Your task to perform on an android device: Open Wikipedia Image 0: 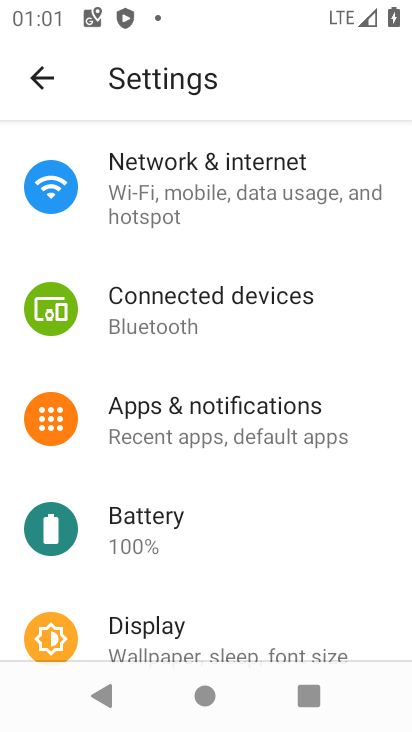
Step 0: press home button
Your task to perform on an android device: Open Wikipedia Image 1: 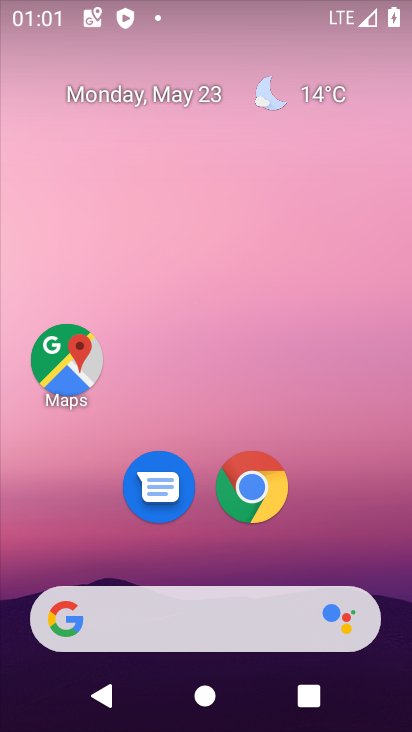
Step 1: click (253, 487)
Your task to perform on an android device: Open Wikipedia Image 2: 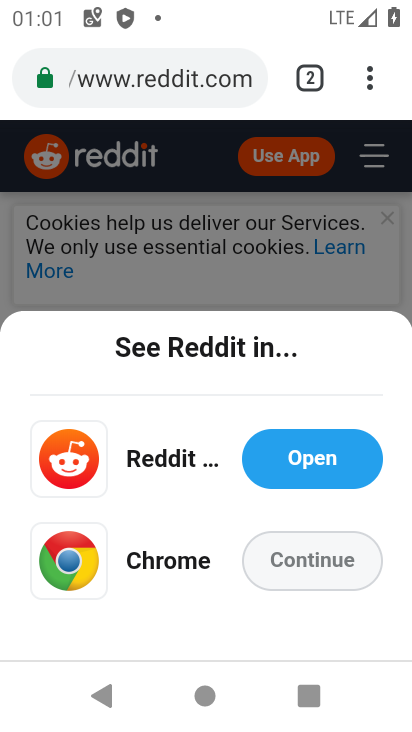
Step 2: click (137, 65)
Your task to perform on an android device: Open Wikipedia Image 3: 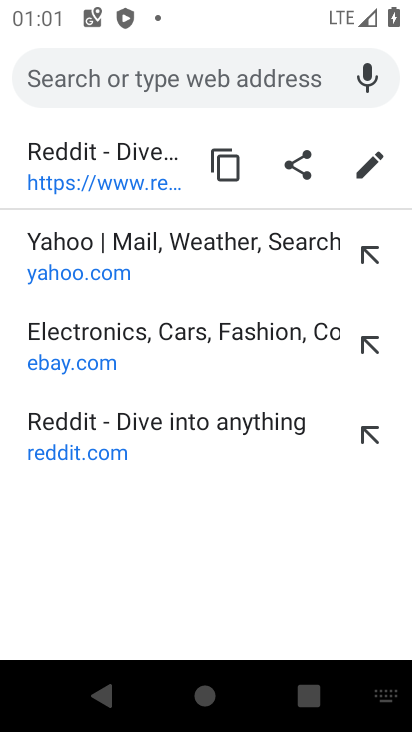
Step 3: type "wikipdeia"
Your task to perform on an android device: Open Wikipedia Image 4: 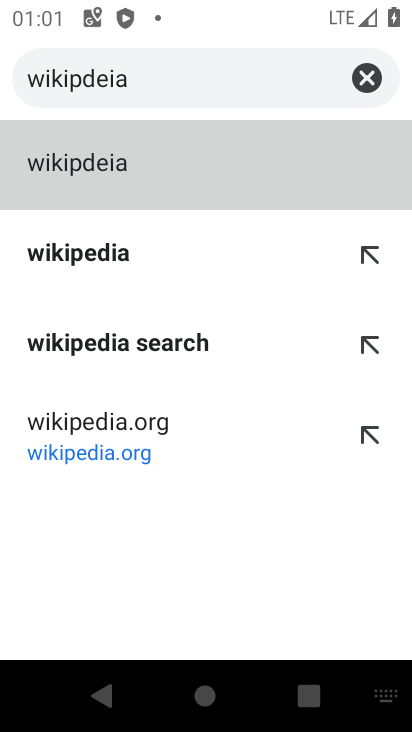
Step 4: click (111, 186)
Your task to perform on an android device: Open Wikipedia Image 5: 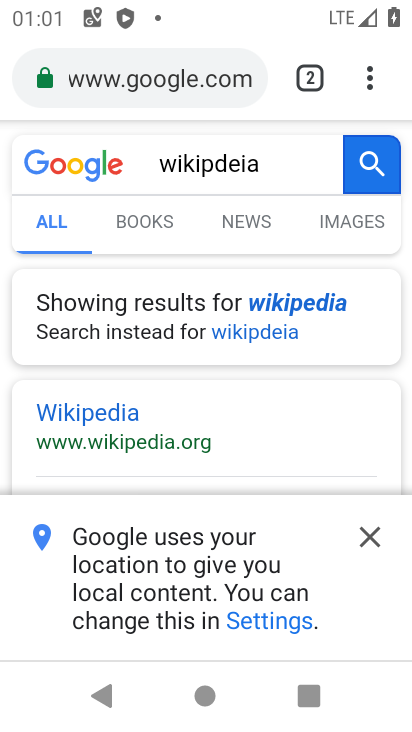
Step 5: click (370, 533)
Your task to perform on an android device: Open Wikipedia Image 6: 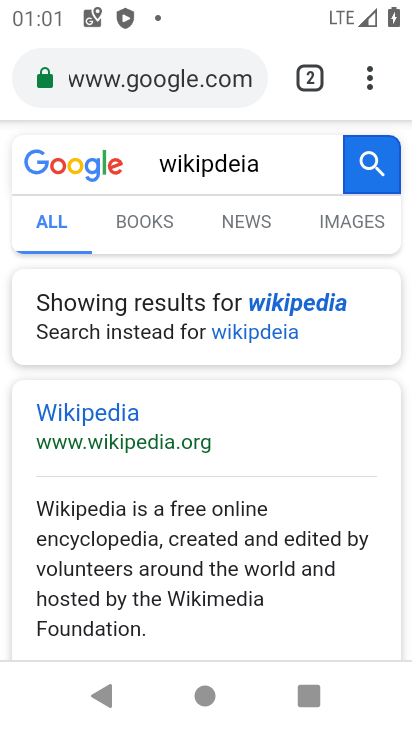
Step 6: click (99, 429)
Your task to perform on an android device: Open Wikipedia Image 7: 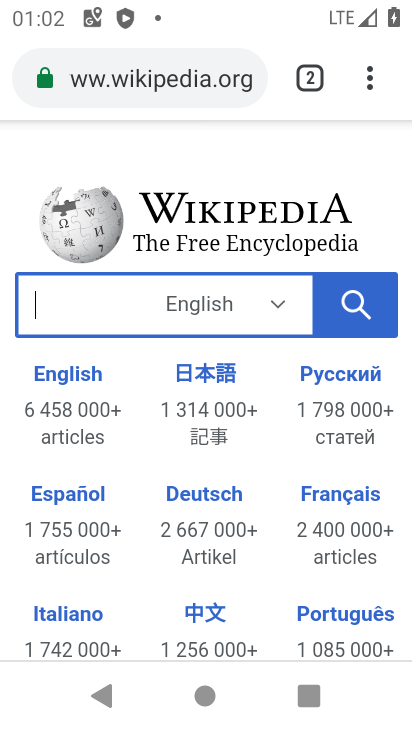
Step 7: task complete